Your task to perform on an android device: Open settings on Google Maps Image 0: 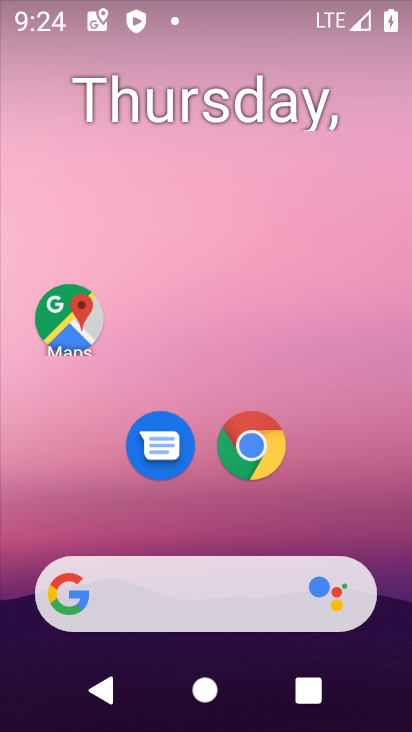
Step 0: click (77, 346)
Your task to perform on an android device: Open settings on Google Maps Image 1: 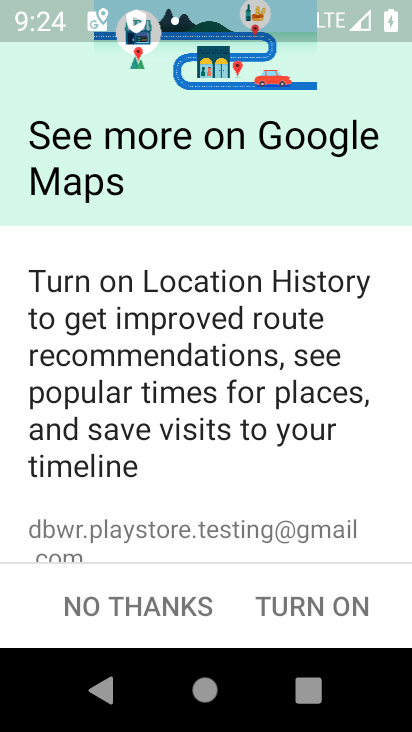
Step 1: click (195, 600)
Your task to perform on an android device: Open settings on Google Maps Image 2: 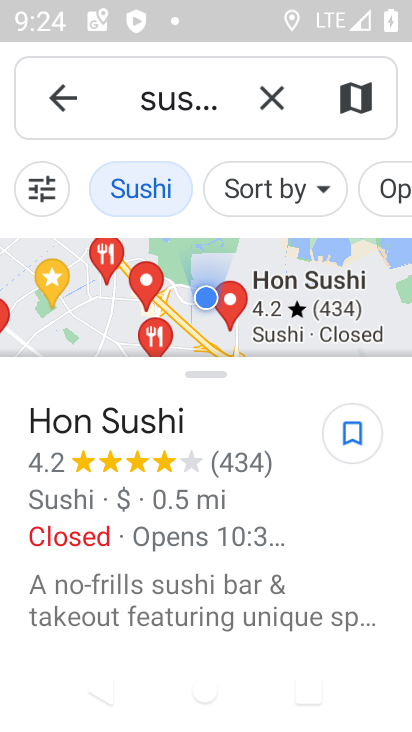
Step 2: click (57, 101)
Your task to perform on an android device: Open settings on Google Maps Image 3: 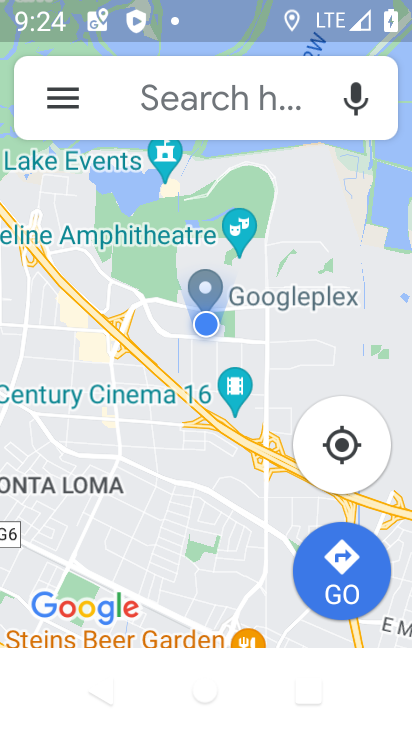
Step 3: click (88, 109)
Your task to perform on an android device: Open settings on Google Maps Image 4: 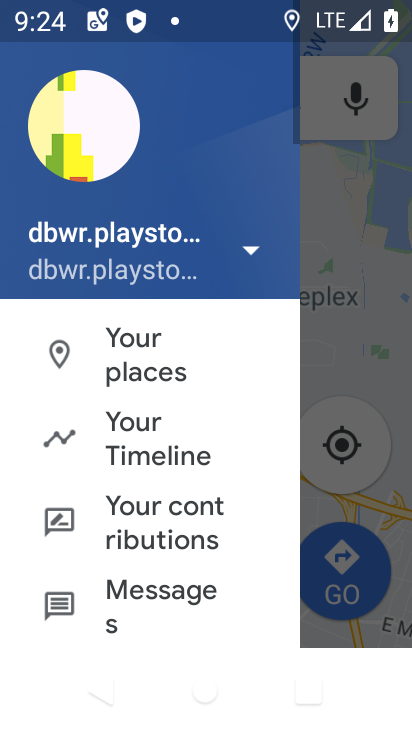
Step 4: drag from (107, 589) to (208, 241)
Your task to perform on an android device: Open settings on Google Maps Image 5: 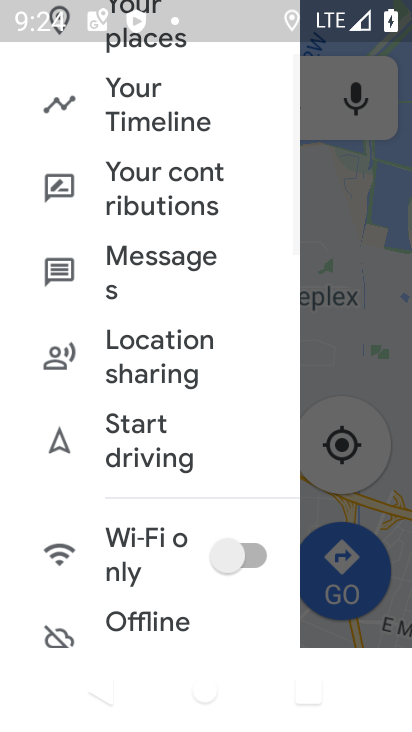
Step 5: drag from (79, 537) to (213, 179)
Your task to perform on an android device: Open settings on Google Maps Image 6: 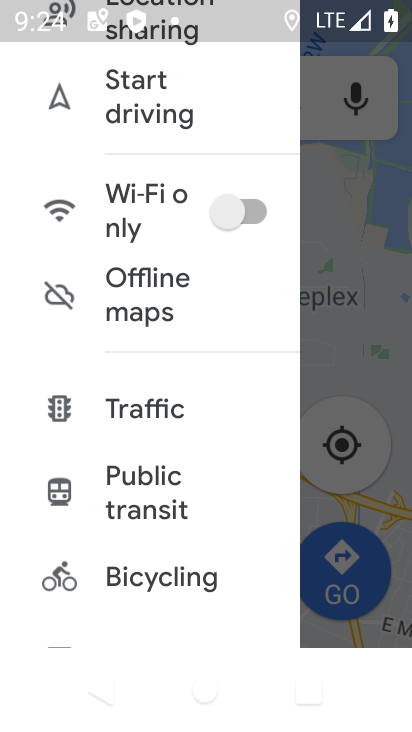
Step 6: drag from (145, 586) to (255, 196)
Your task to perform on an android device: Open settings on Google Maps Image 7: 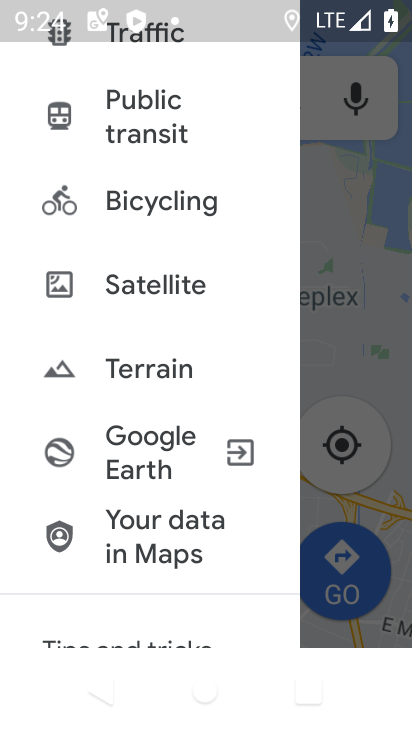
Step 7: drag from (142, 569) to (251, 184)
Your task to perform on an android device: Open settings on Google Maps Image 8: 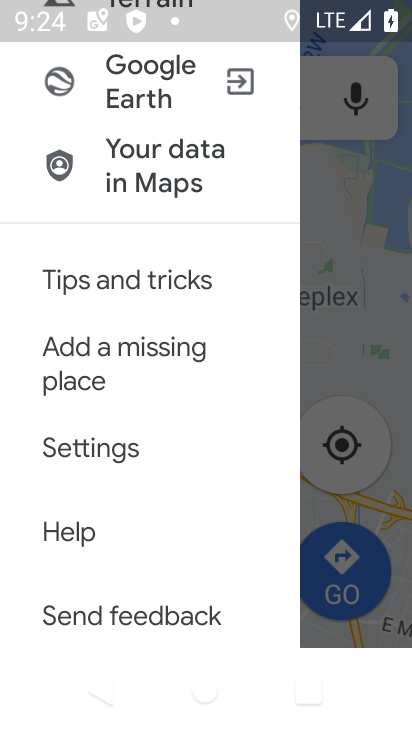
Step 8: click (208, 446)
Your task to perform on an android device: Open settings on Google Maps Image 9: 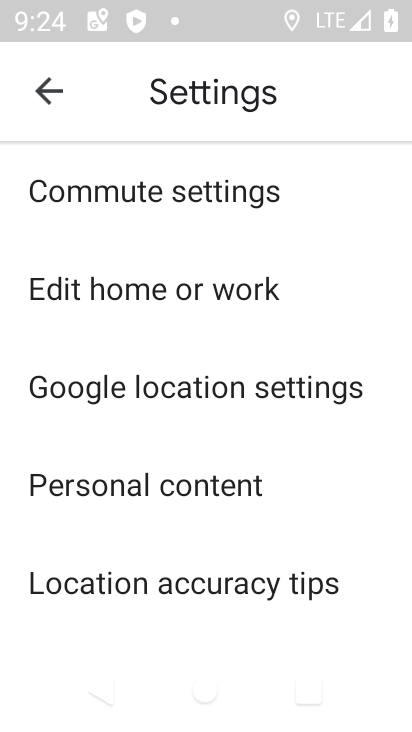
Step 9: task complete